Your task to perform on an android device: What's on my calendar today? Image 0: 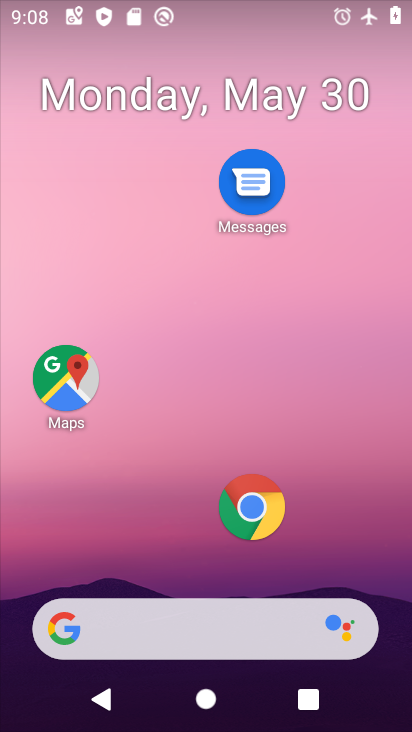
Step 0: drag from (200, 554) to (329, 6)
Your task to perform on an android device: What's on my calendar today? Image 1: 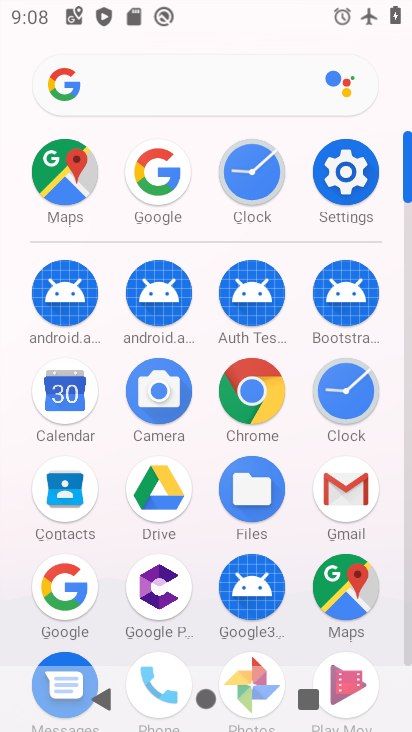
Step 1: click (63, 421)
Your task to perform on an android device: What's on my calendar today? Image 2: 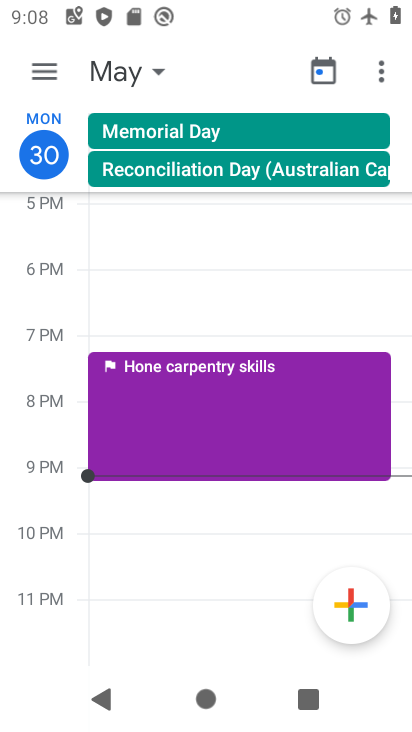
Step 2: click (121, 84)
Your task to perform on an android device: What's on my calendar today? Image 3: 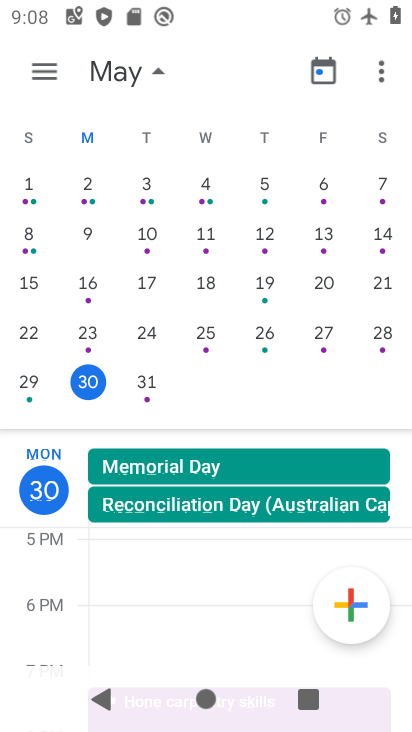
Step 3: drag from (316, 209) to (16, 189)
Your task to perform on an android device: What's on my calendar today? Image 4: 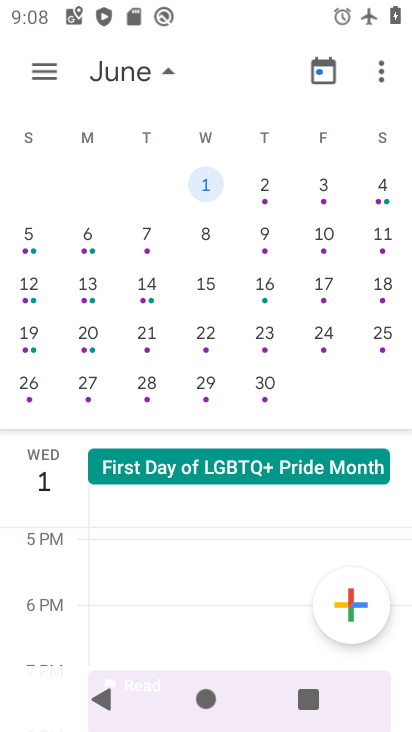
Step 4: drag from (69, 277) to (407, 284)
Your task to perform on an android device: What's on my calendar today? Image 5: 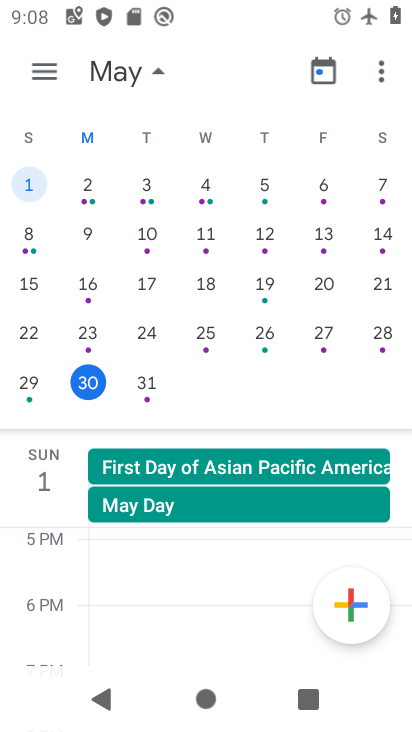
Step 5: click (157, 391)
Your task to perform on an android device: What's on my calendar today? Image 6: 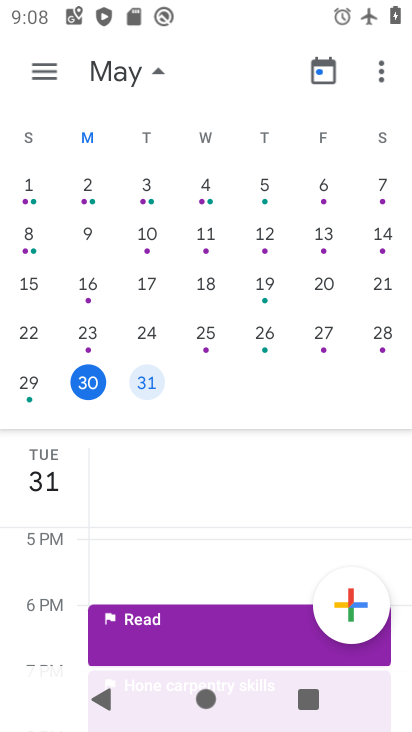
Step 6: task complete